Your task to perform on an android device: When is my next meeting? Image 0: 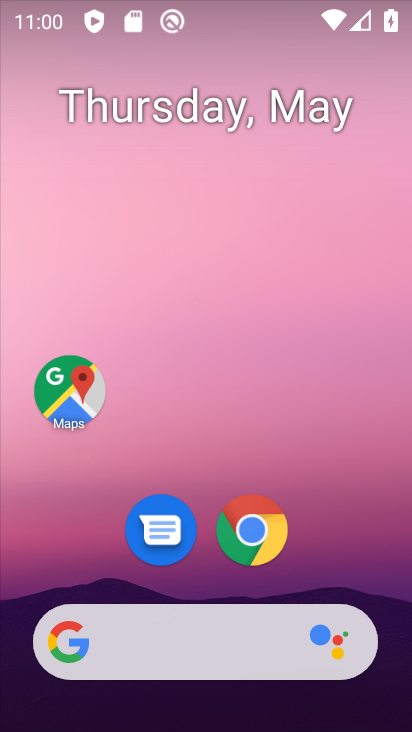
Step 0: drag from (328, 539) to (301, 185)
Your task to perform on an android device: When is my next meeting? Image 1: 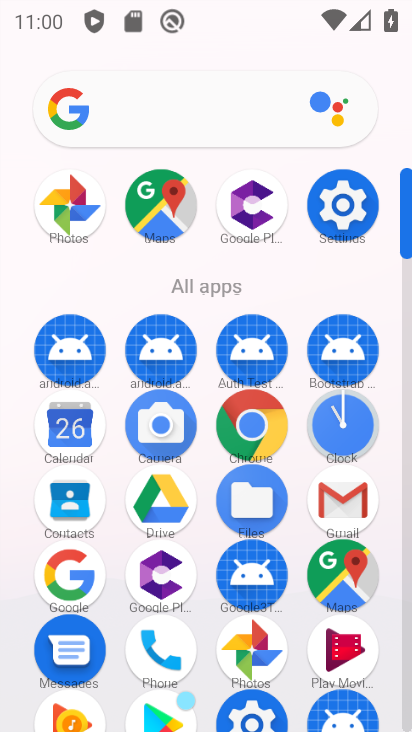
Step 1: click (68, 416)
Your task to perform on an android device: When is my next meeting? Image 2: 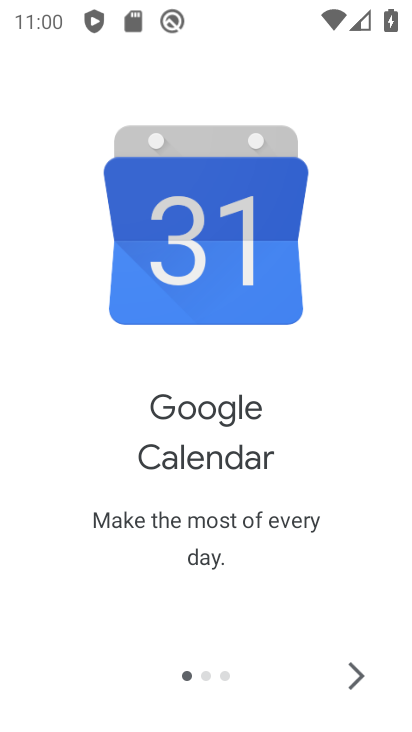
Step 2: click (68, 416)
Your task to perform on an android device: When is my next meeting? Image 3: 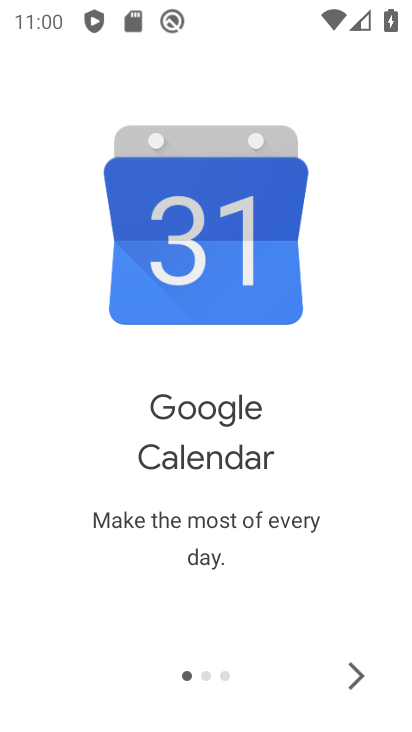
Step 3: click (68, 416)
Your task to perform on an android device: When is my next meeting? Image 4: 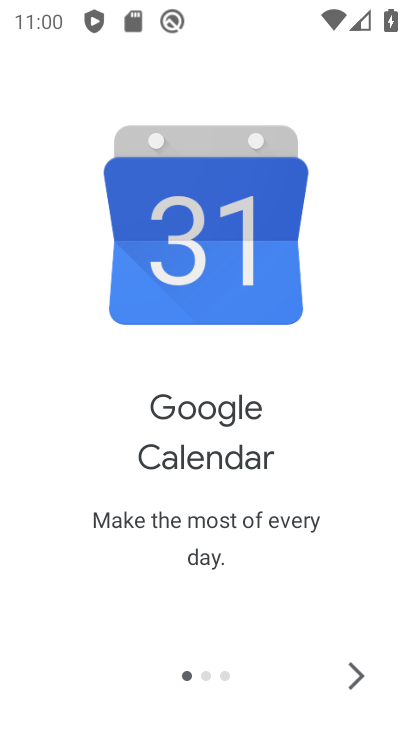
Step 4: click (348, 671)
Your task to perform on an android device: When is my next meeting? Image 5: 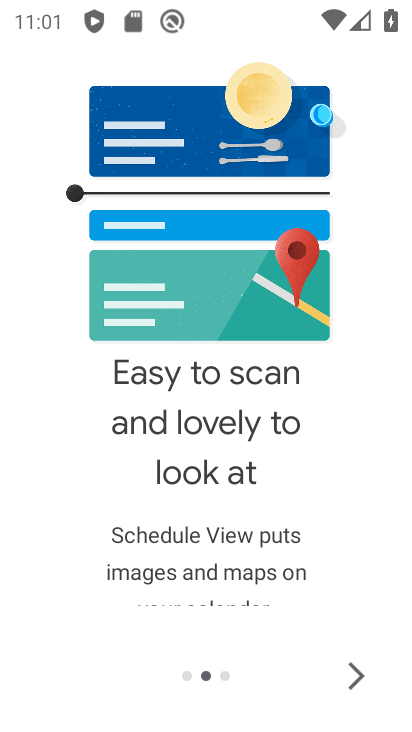
Step 5: click (348, 671)
Your task to perform on an android device: When is my next meeting? Image 6: 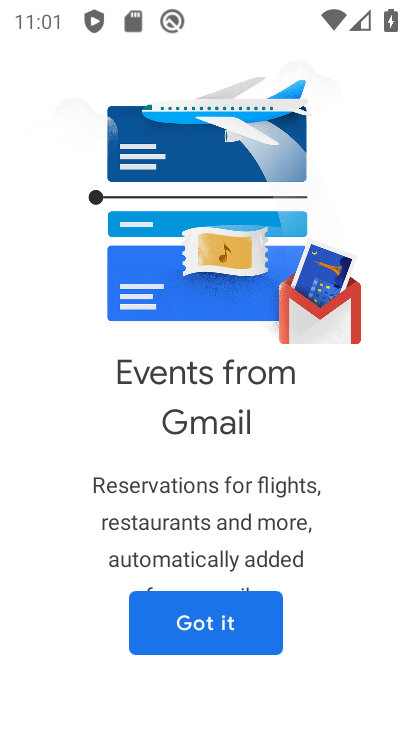
Step 6: click (248, 626)
Your task to perform on an android device: When is my next meeting? Image 7: 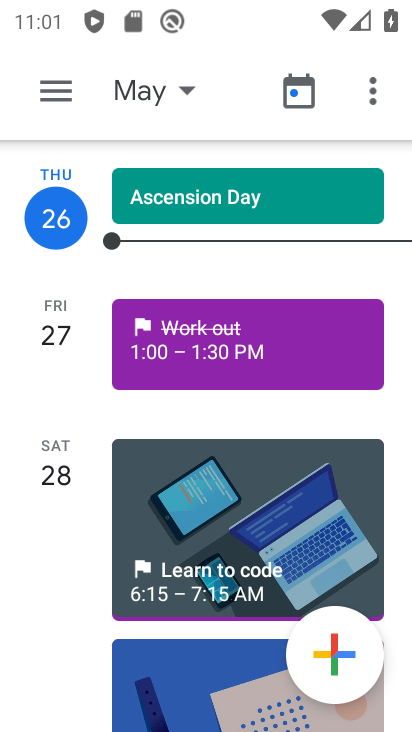
Step 7: drag from (240, 626) to (273, 259)
Your task to perform on an android device: When is my next meeting? Image 8: 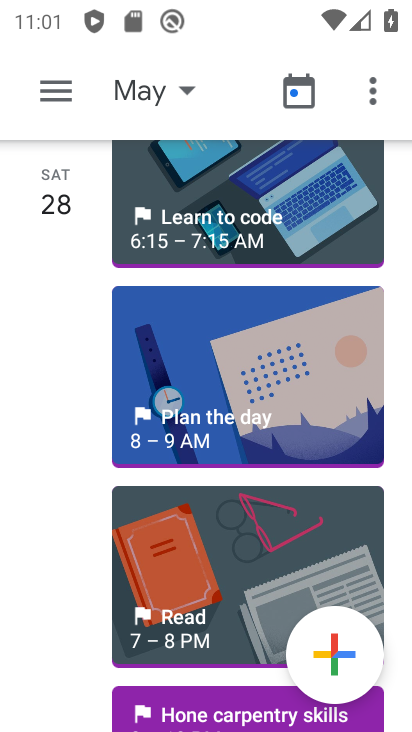
Step 8: drag from (223, 653) to (218, 208)
Your task to perform on an android device: When is my next meeting? Image 9: 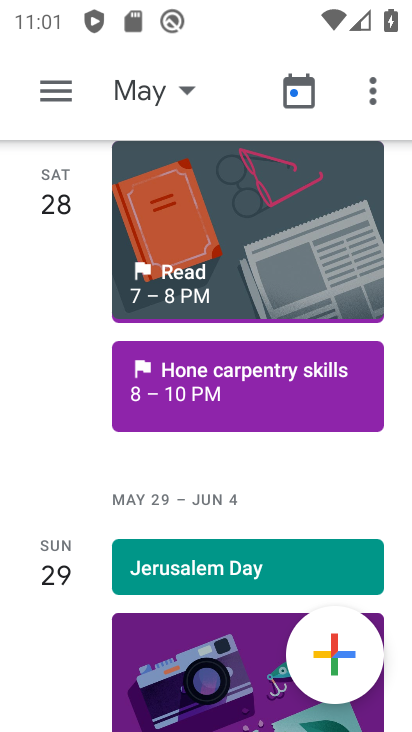
Step 9: drag from (231, 648) to (239, 123)
Your task to perform on an android device: When is my next meeting? Image 10: 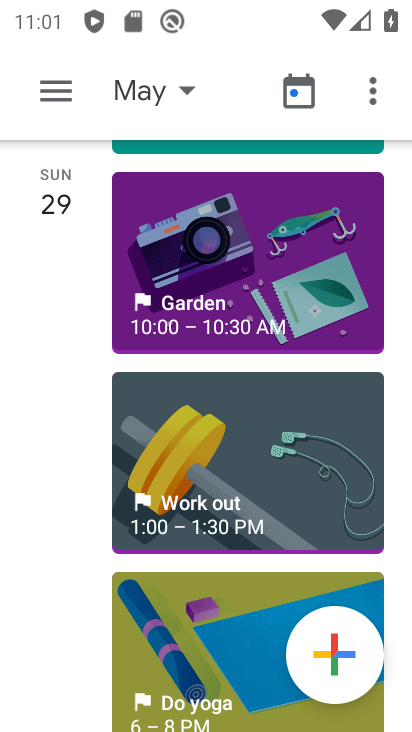
Step 10: drag from (250, 627) to (253, 179)
Your task to perform on an android device: When is my next meeting? Image 11: 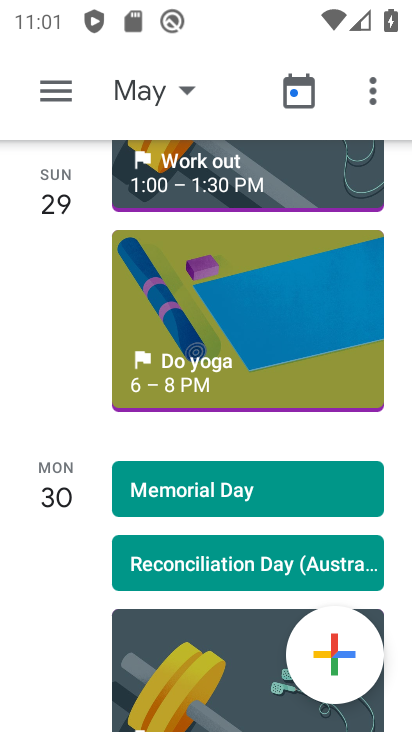
Step 11: drag from (225, 668) to (262, 221)
Your task to perform on an android device: When is my next meeting? Image 12: 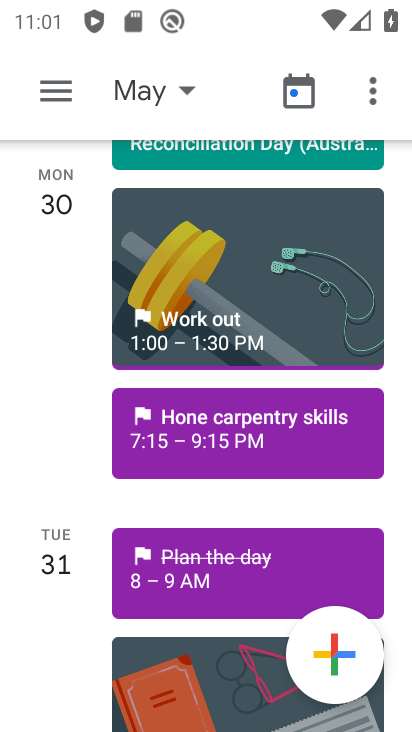
Step 12: drag from (199, 679) to (247, 215)
Your task to perform on an android device: When is my next meeting? Image 13: 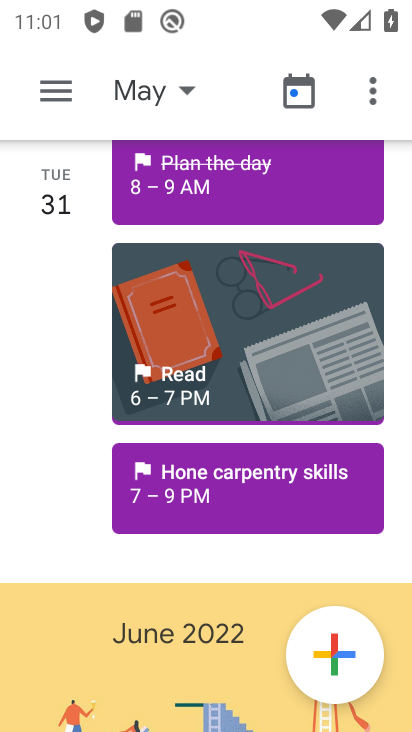
Step 13: drag from (236, 649) to (231, 196)
Your task to perform on an android device: When is my next meeting? Image 14: 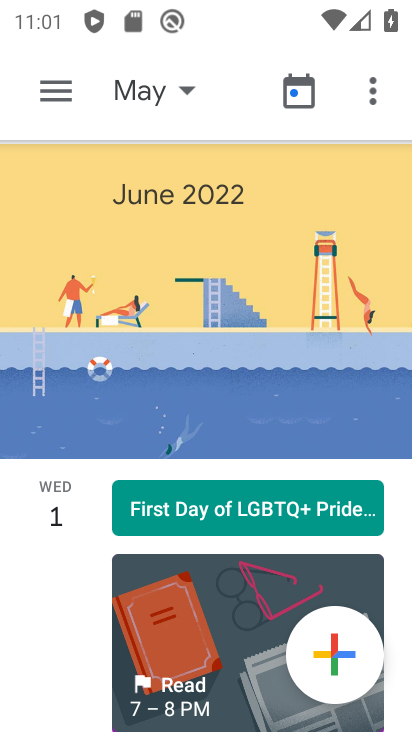
Step 14: drag from (227, 639) to (288, 259)
Your task to perform on an android device: When is my next meeting? Image 15: 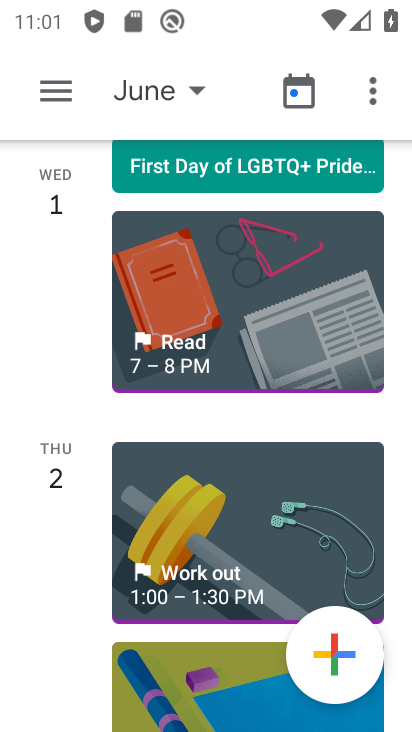
Step 15: drag from (250, 595) to (314, 197)
Your task to perform on an android device: When is my next meeting? Image 16: 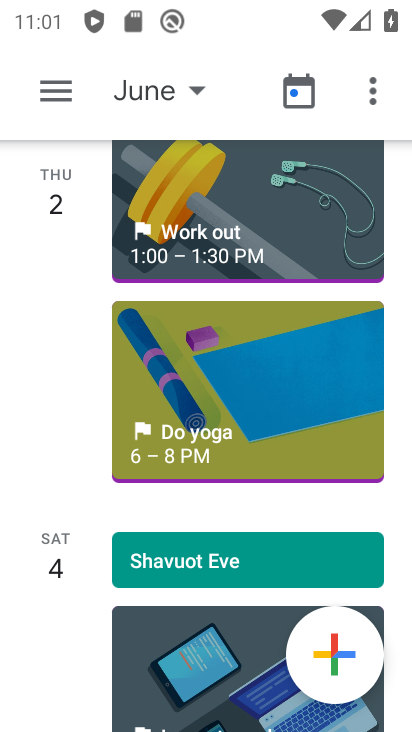
Step 16: drag from (252, 646) to (373, 177)
Your task to perform on an android device: When is my next meeting? Image 17: 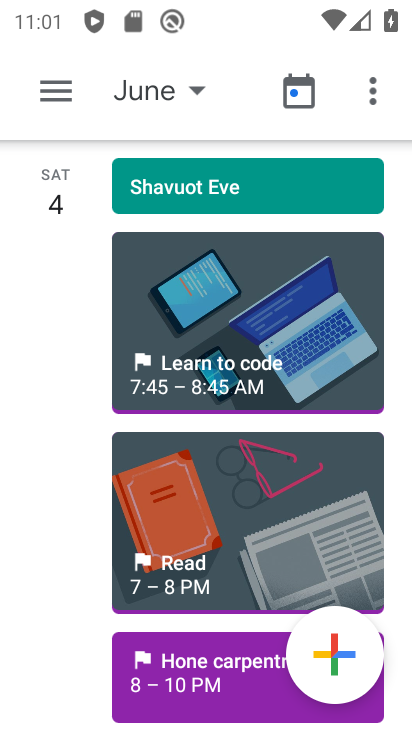
Step 17: drag from (242, 628) to (329, 197)
Your task to perform on an android device: When is my next meeting? Image 18: 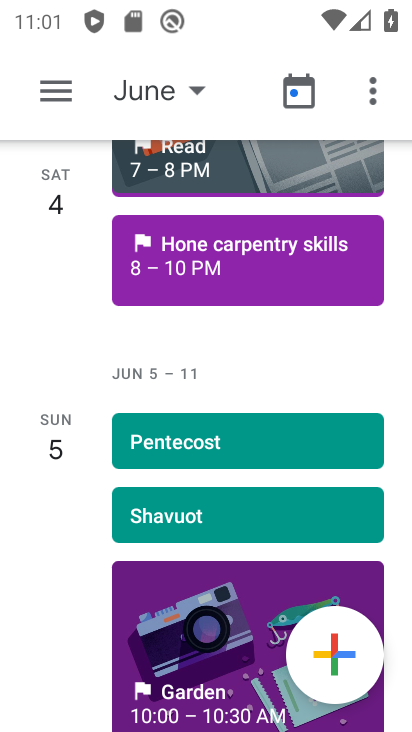
Step 18: drag from (153, 704) to (292, 252)
Your task to perform on an android device: When is my next meeting? Image 19: 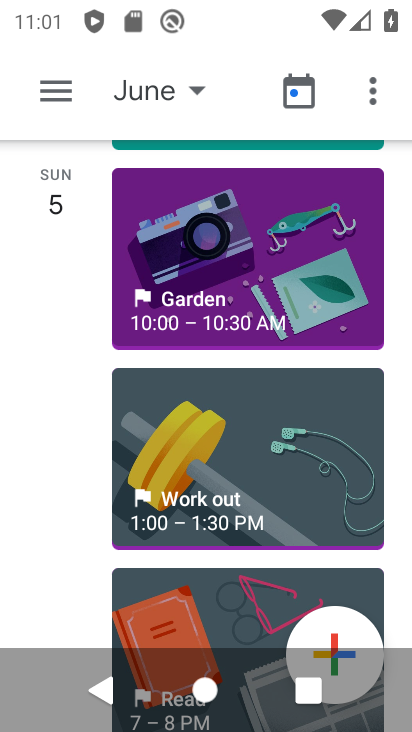
Step 19: drag from (235, 511) to (273, 136)
Your task to perform on an android device: When is my next meeting? Image 20: 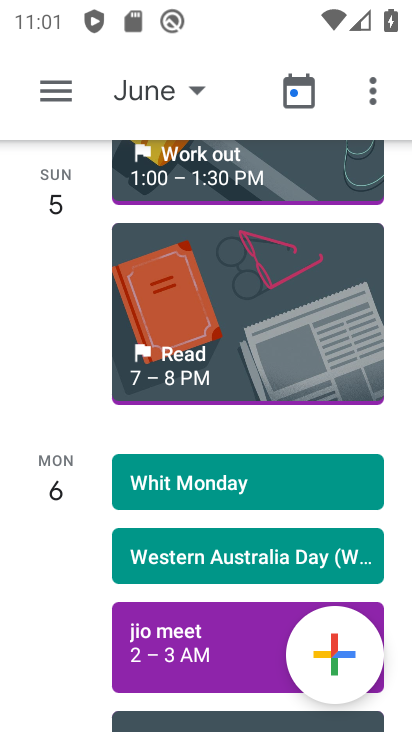
Step 20: click (212, 620)
Your task to perform on an android device: When is my next meeting? Image 21: 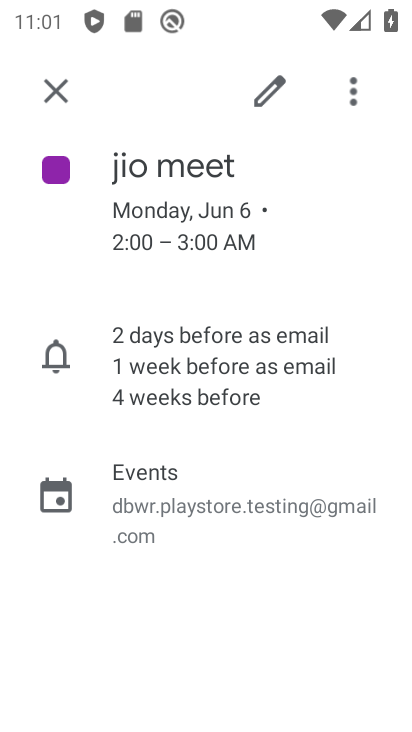
Step 21: task complete